Your task to perform on an android device: Open settings on Google Maps Image 0: 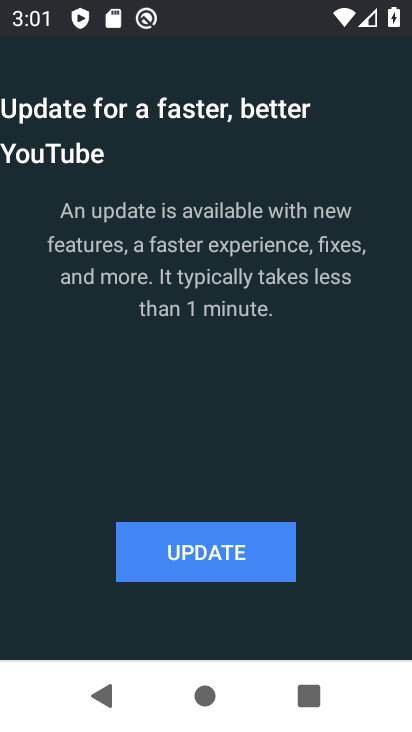
Step 0: press home button
Your task to perform on an android device: Open settings on Google Maps Image 1: 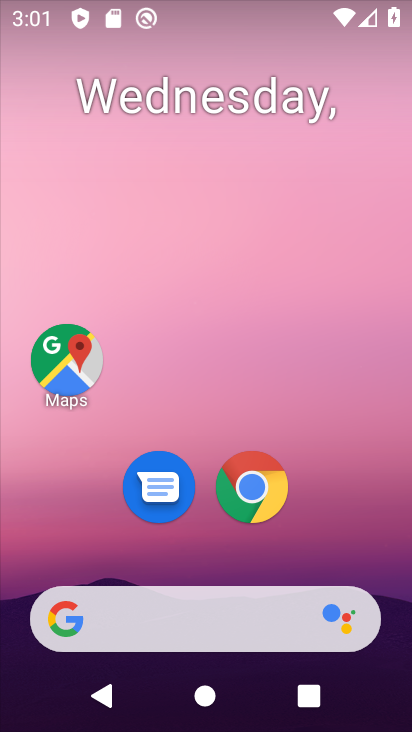
Step 1: drag from (363, 531) to (363, 160)
Your task to perform on an android device: Open settings on Google Maps Image 2: 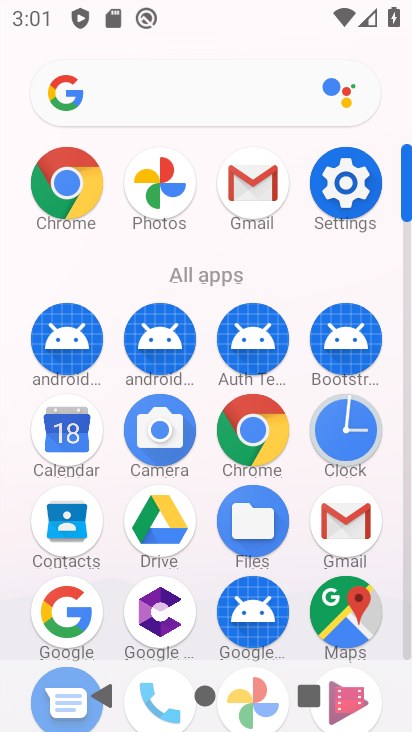
Step 2: drag from (300, 550) to (295, 404)
Your task to perform on an android device: Open settings on Google Maps Image 3: 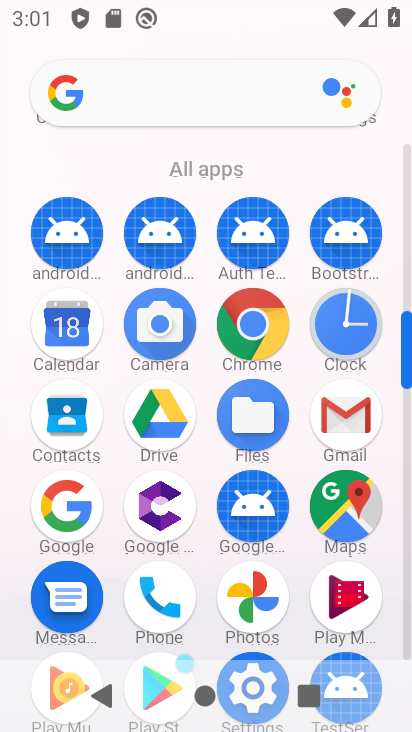
Step 3: click (347, 523)
Your task to perform on an android device: Open settings on Google Maps Image 4: 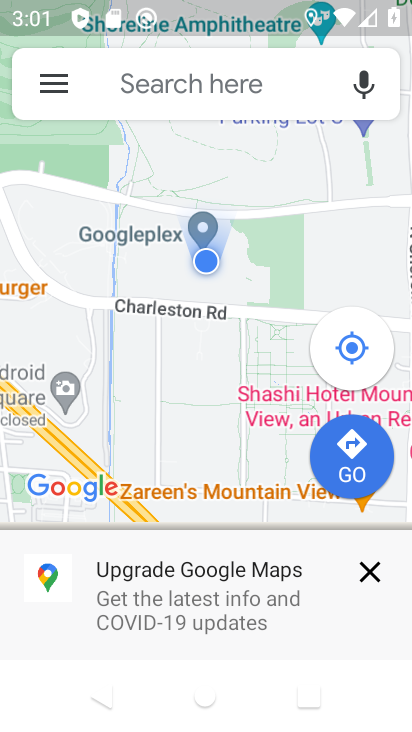
Step 4: task complete